Your task to perform on an android device: Go to settings Image 0: 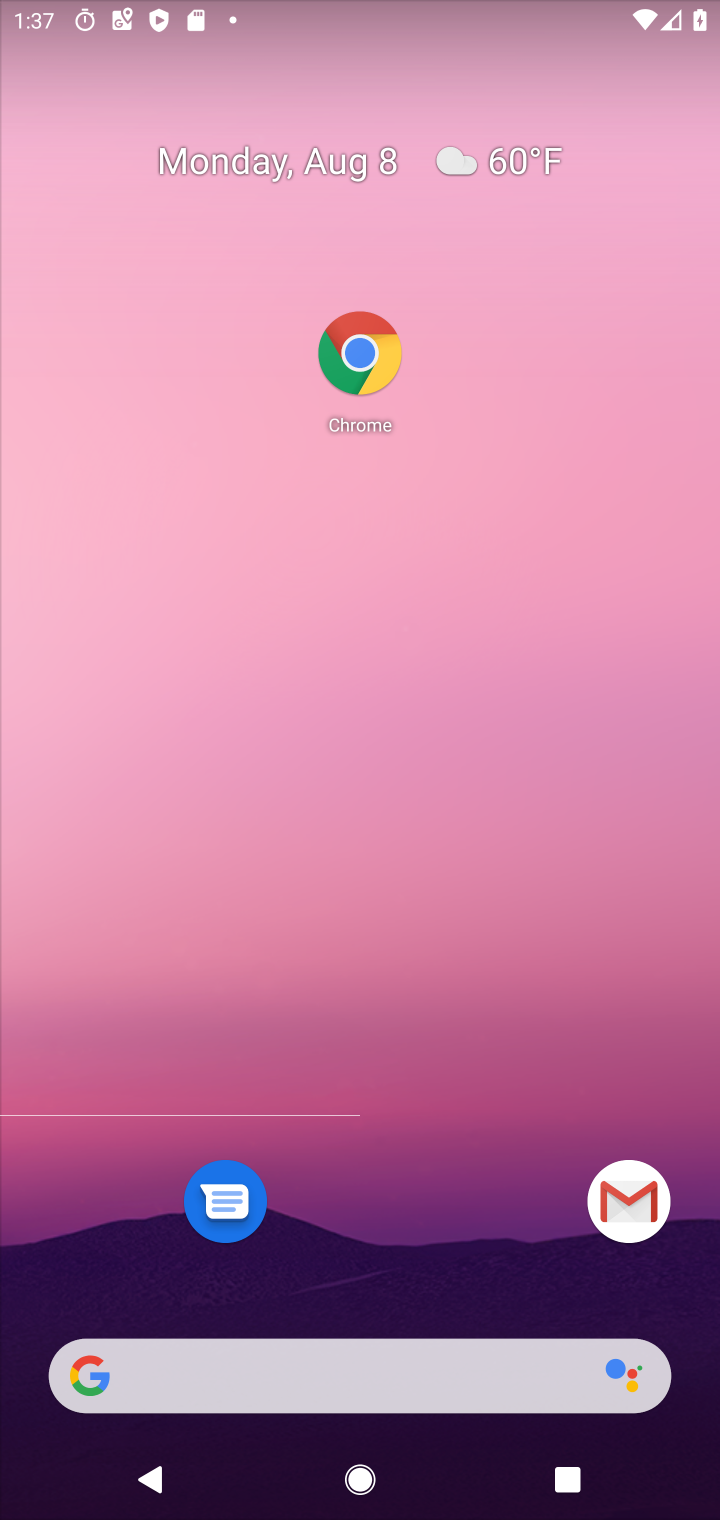
Step 0: press home button
Your task to perform on an android device: Go to settings Image 1: 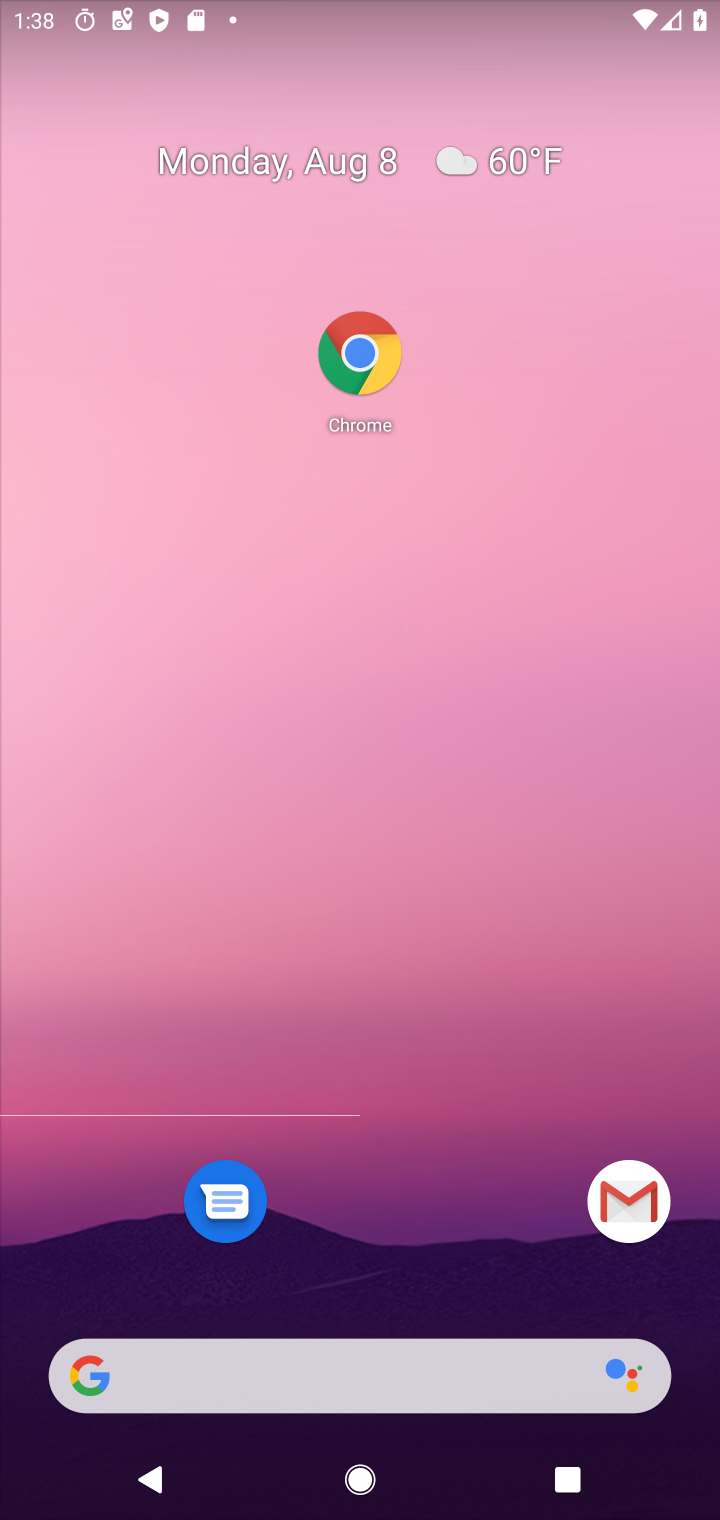
Step 1: drag from (517, 1353) to (418, 722)
Your task to perform on an android device: Go to settings Image 2: 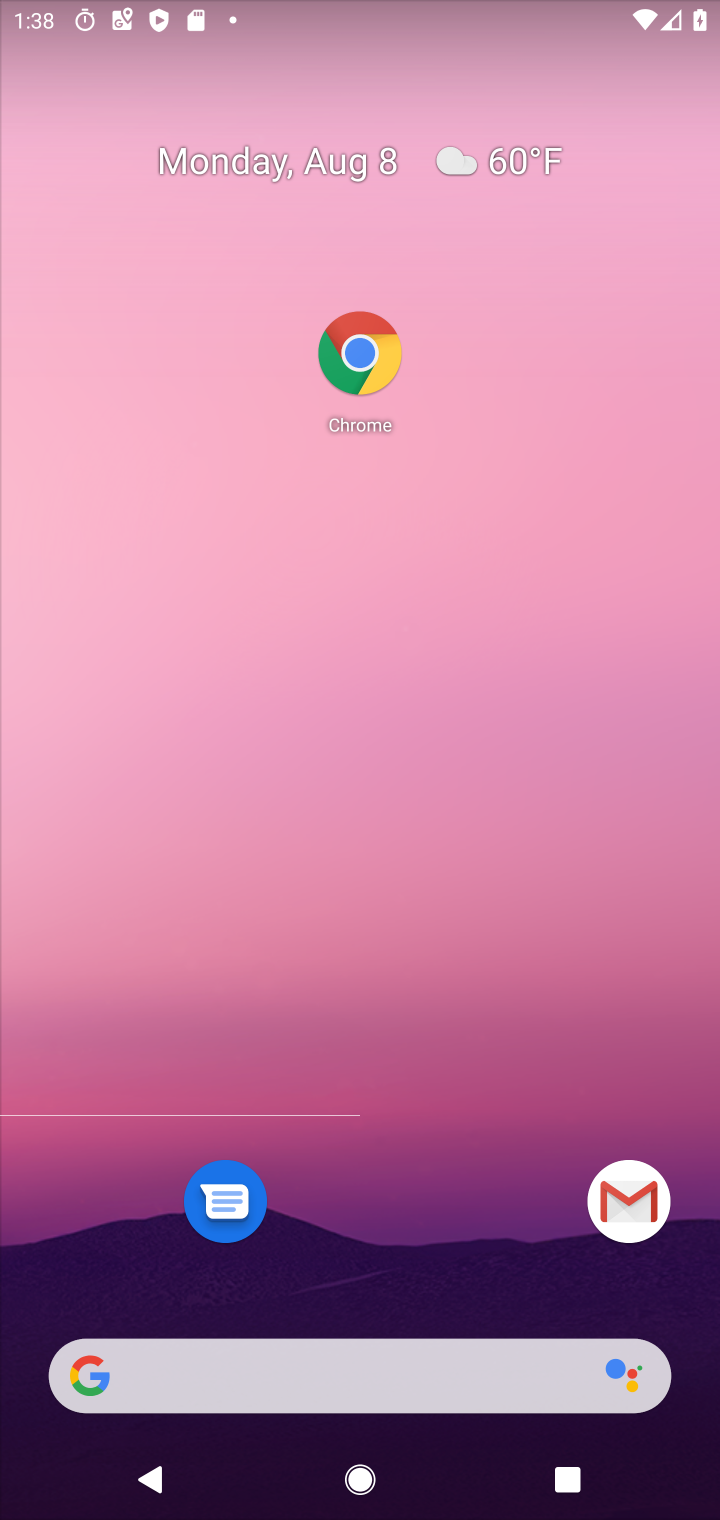
Step 2: drag from (390, 1419) to (439, 304)
Your task to perform on an android device: Go to settings Image 3: 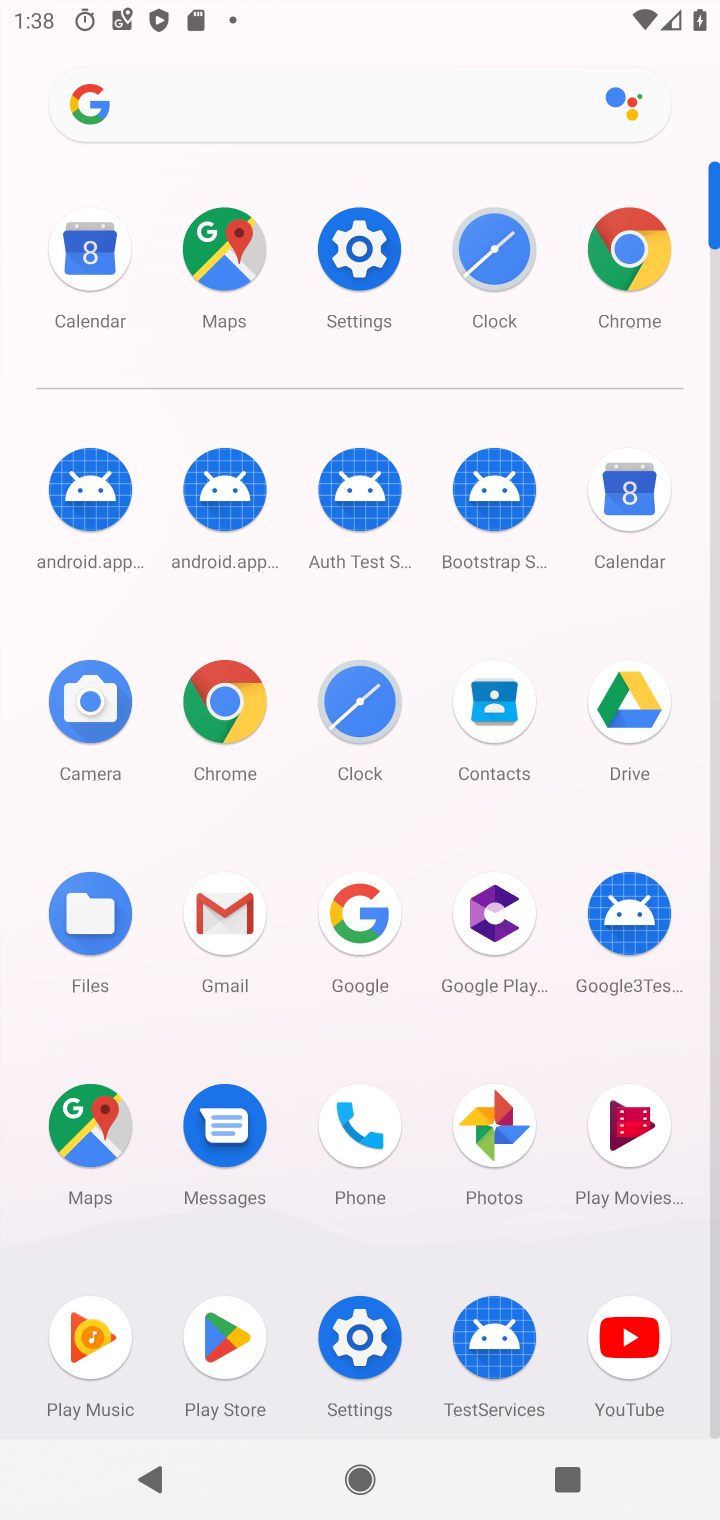
Step 3: click (335, 227)
Your task to perform on an android device: Go to settings Image 4: 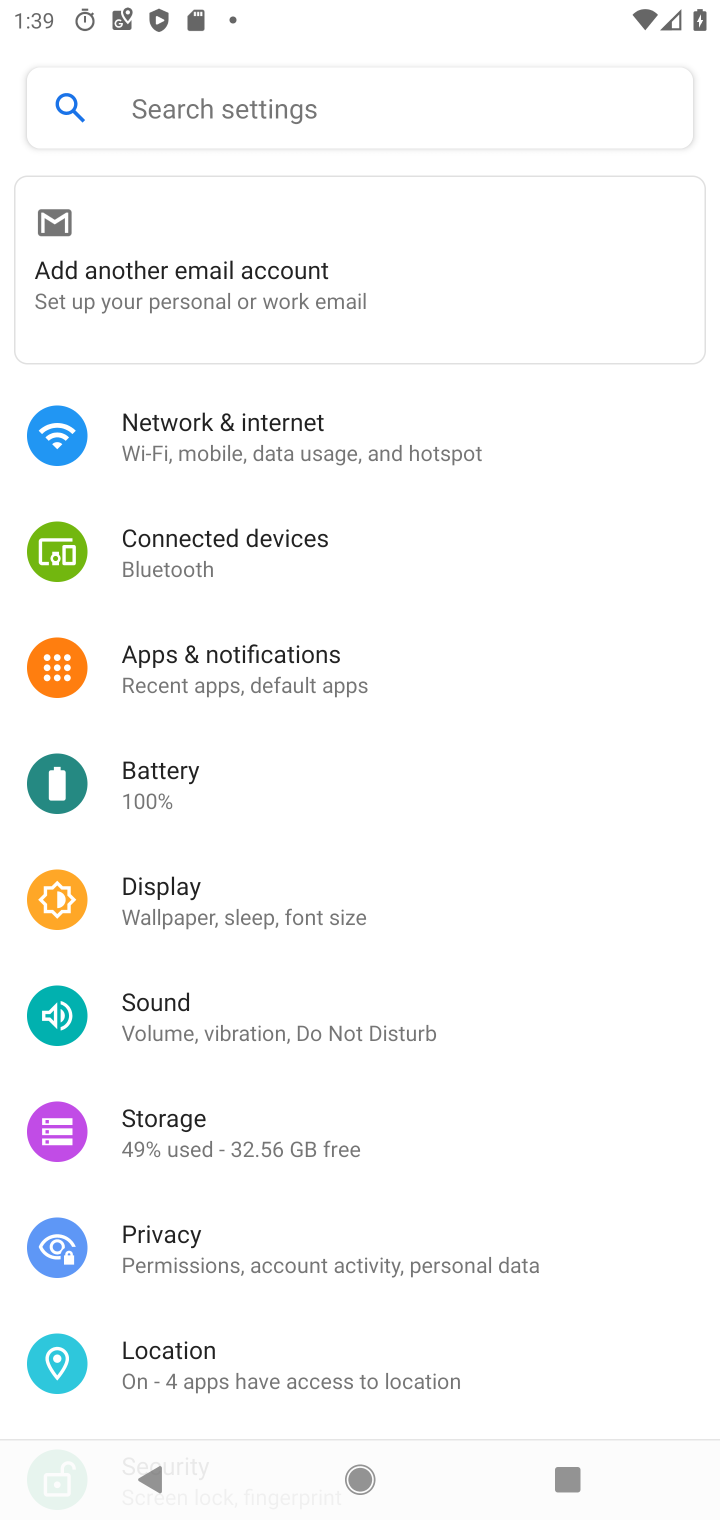
Step 4: task complete